Your task to perform on an android device: Set an alarm for 3pm Image 0: 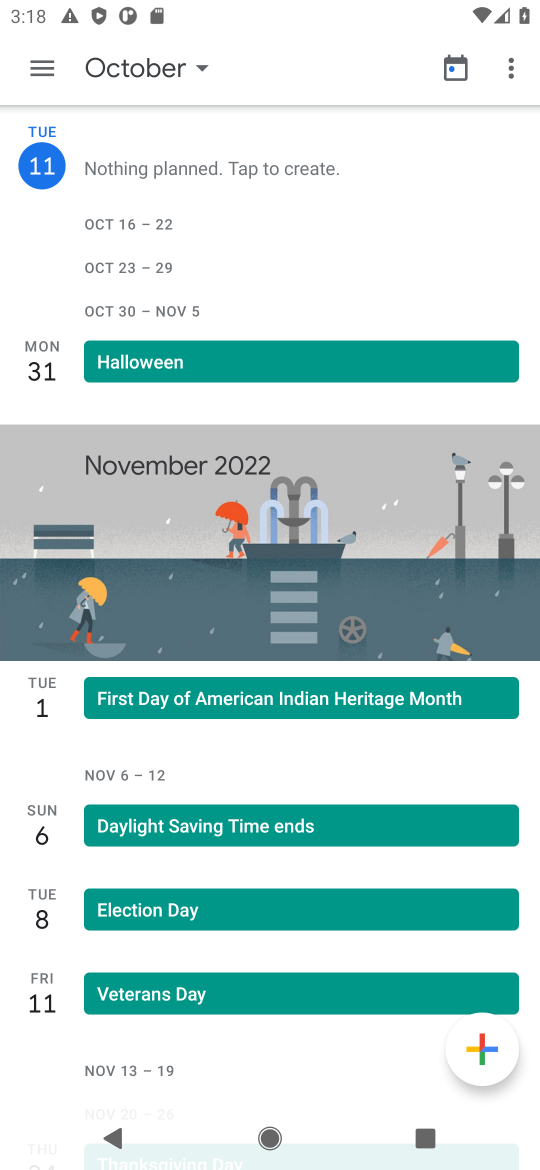
Step 0: press home button
Your task to perform on an android device: Set an alarm for 3pm Image 1: 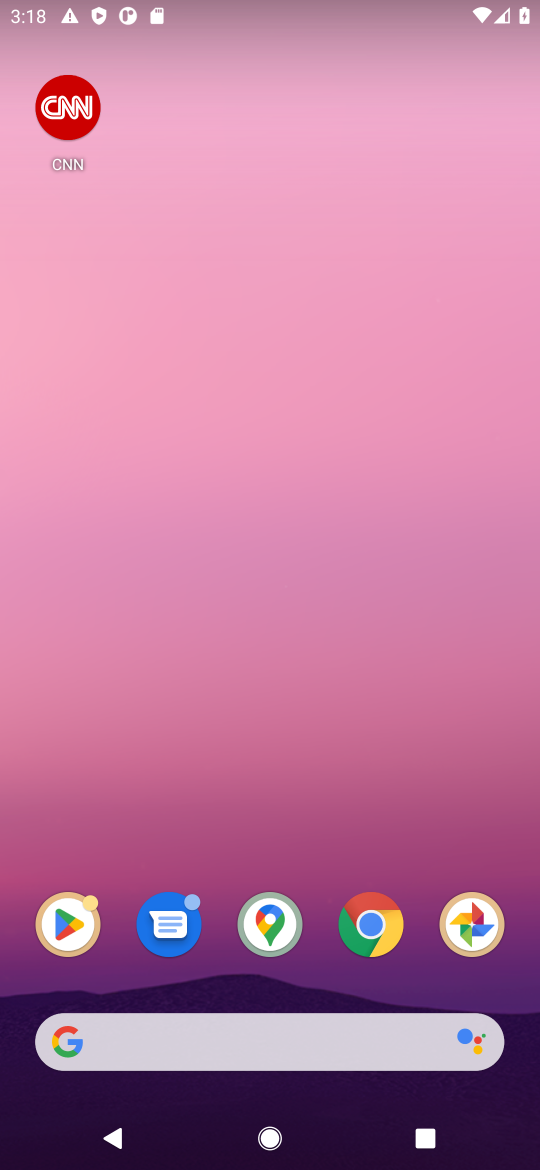
Step 1: drag from (348, 827) to (372, 187)
Your task to perform on an android device: Set an alarm for 3pm Image 2: 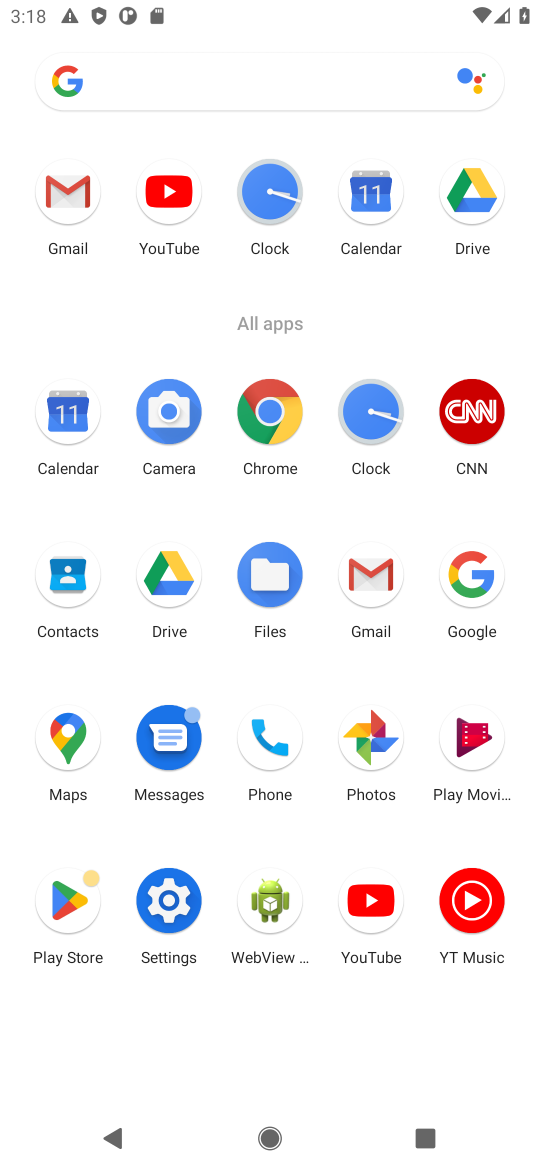
Step 2: click (362, 415)
Your task to perform on an android device: Set an alarm for 3pm Image 3: 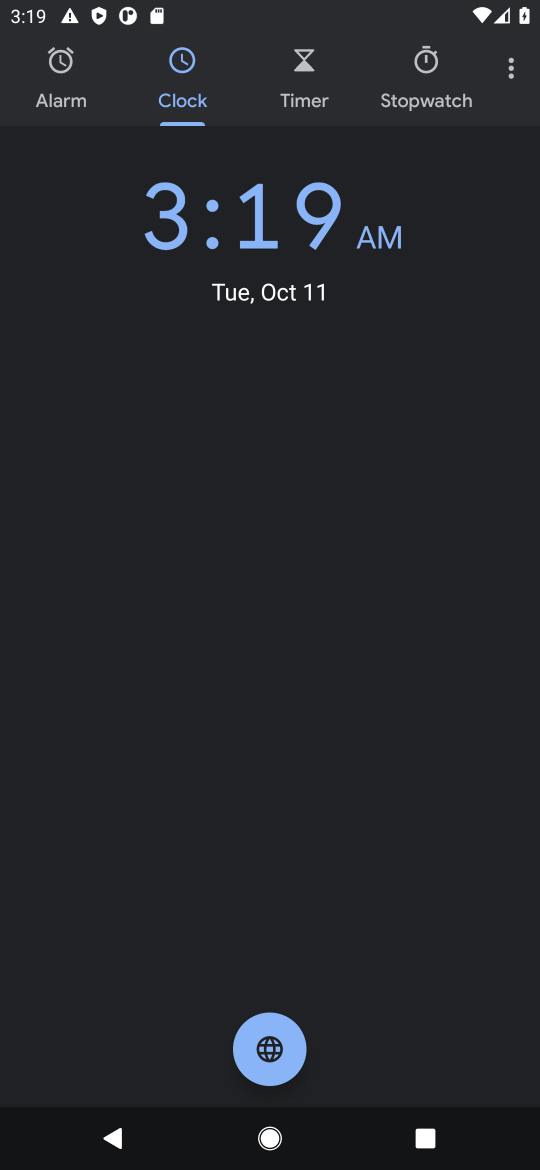
Step 3: click (54, 91)
Your task to perform on an android device: Set an alarm for 3pm Image 4: 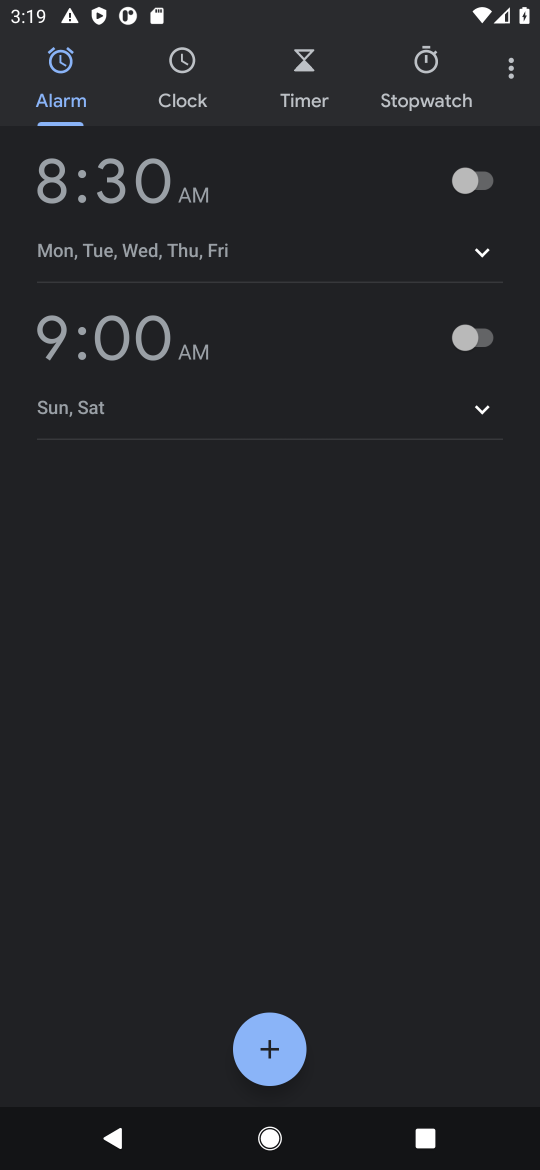
Step 4: click (290, 1034)
Your task to perform on an android device: Set an alarm for 3pm Image 5: 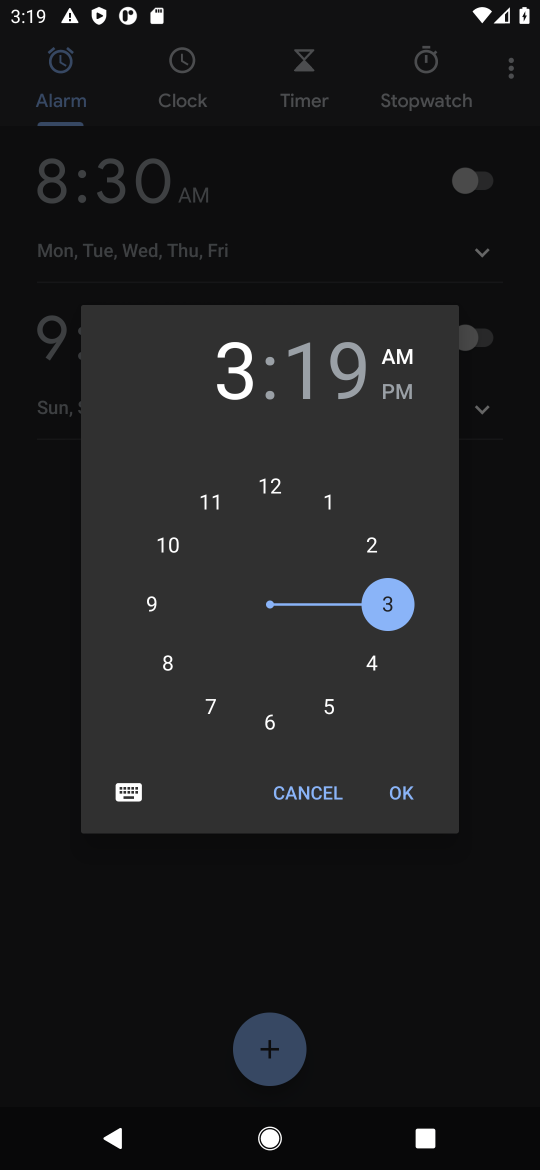
Step 5: click (322, 384)
Your task to perform on an android device: Set an alarm for 3pm Image 6: 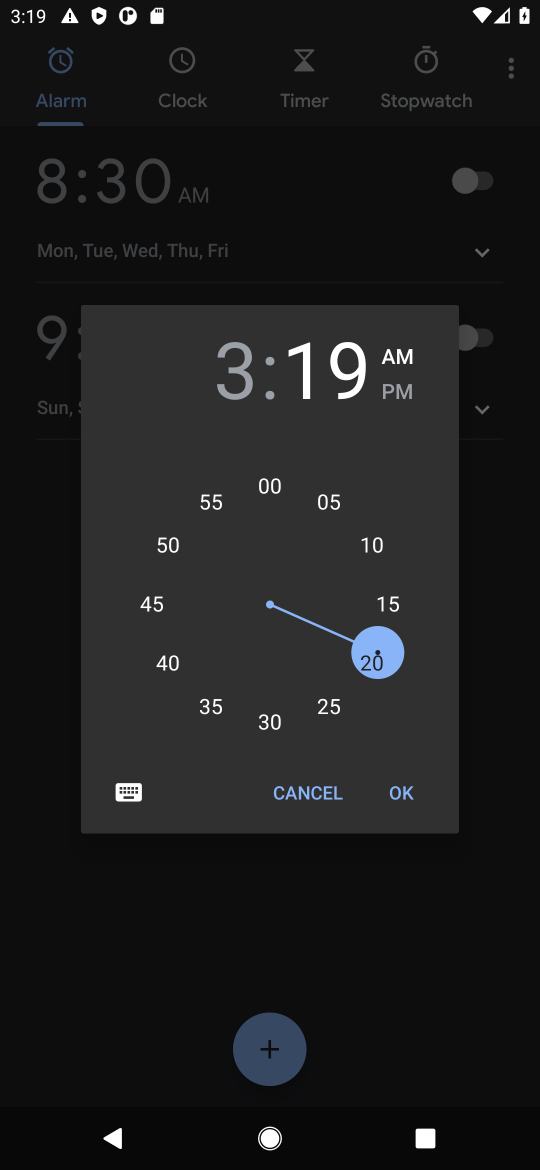
Step 6: drag from (390, 598) to (273, 485)
Your task to perform on an android device: Set an alarm for 3pm Image 7: 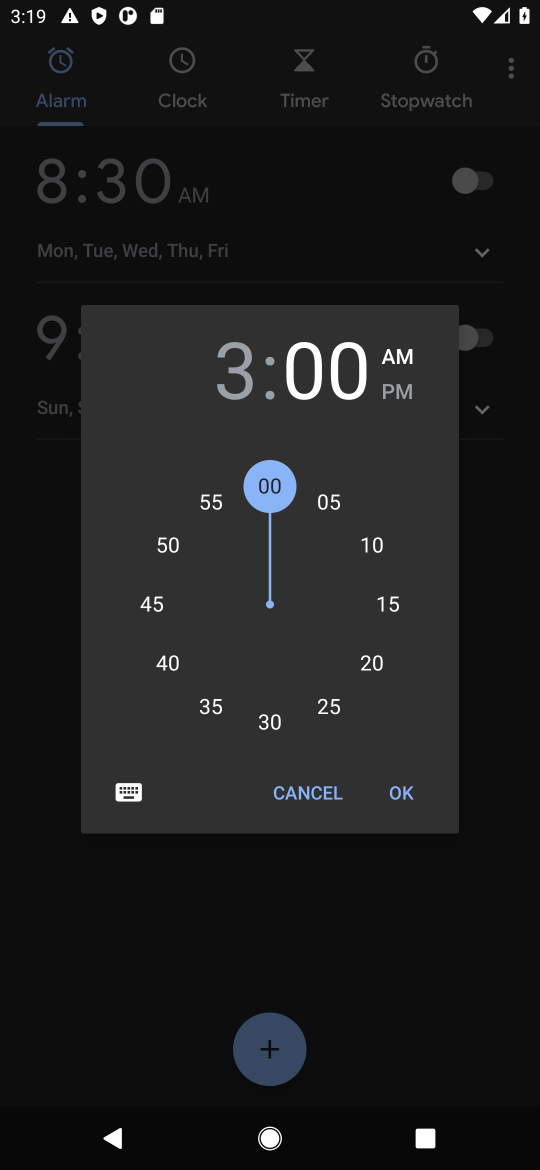
Step 7: click (399, 392)
Your task to perform on an android device: Set an alarm for 3pm Image 8: 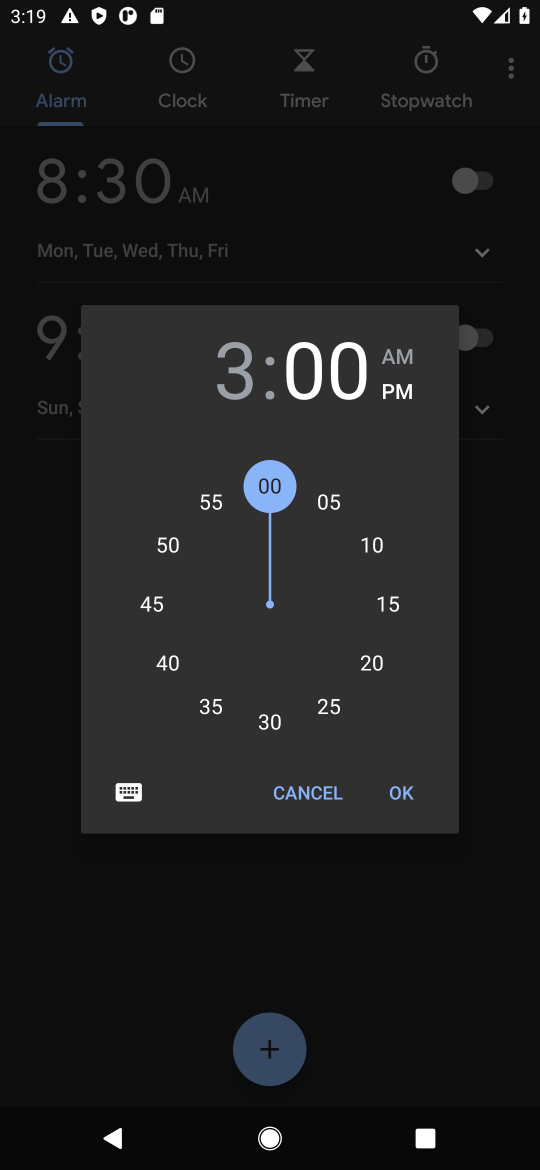
Step 8: click (406, 787)
Your task to perform on an android device: Set an alarm for 3pm Image 9: 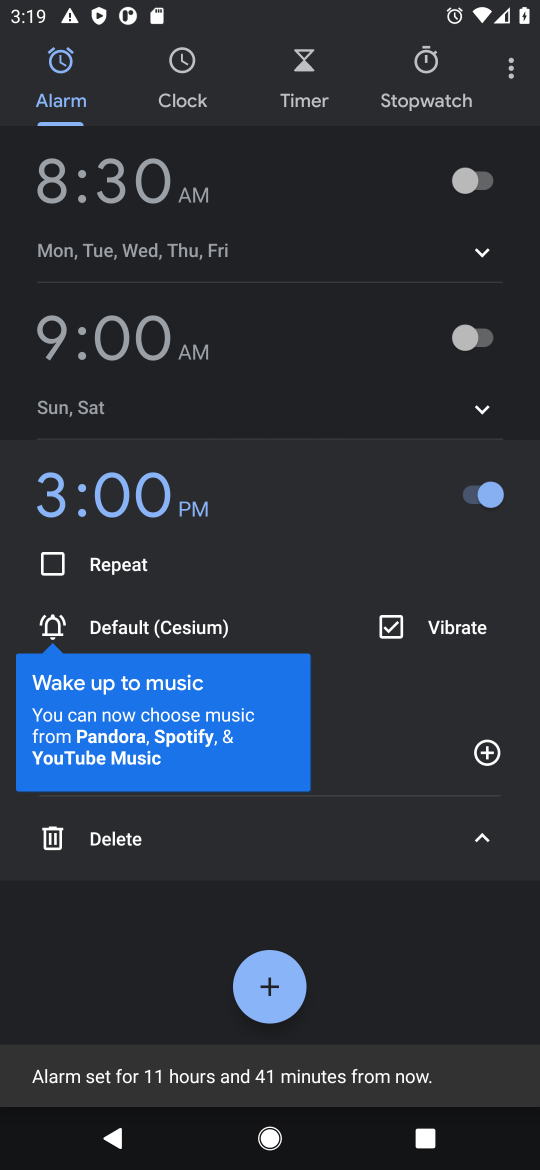
Step 9: task complete